Your task to perform on an android device: remove spam from my inbox in the gmail app Image 0: 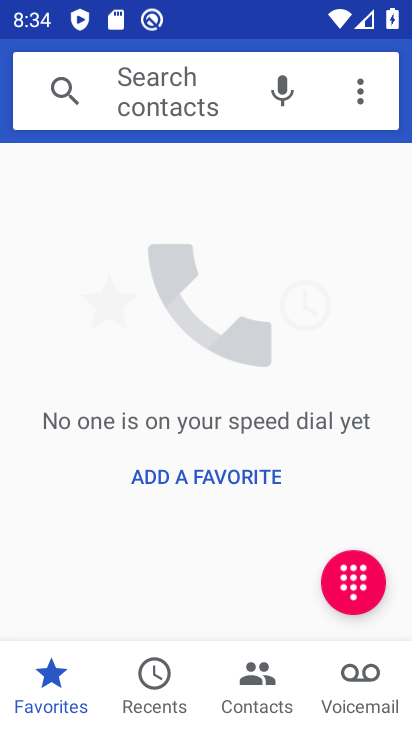
Step 0: press home button
Your task to perform on an android device: remove spam from my inbox in the gmail app Image 1: 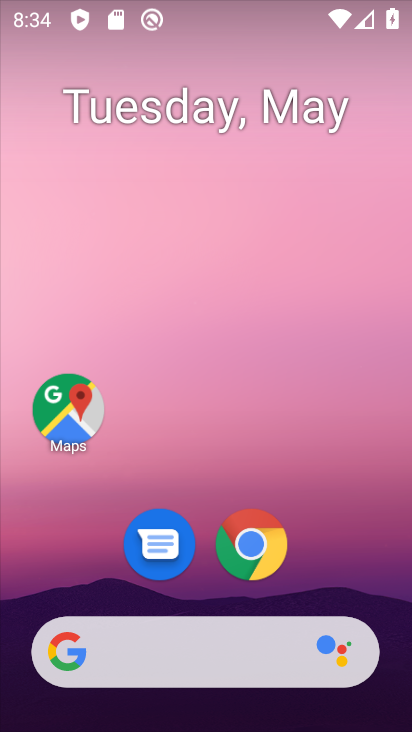
Step 1: drag from (373, 488) to (365, 149)
Your task to perform on an android device: remove spam from my inbox in the gmail app Image 2: 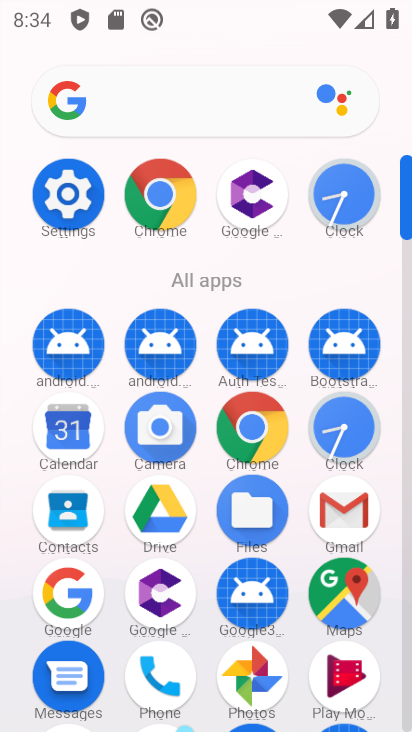
Step 2: click (328, 521)
Your task to perform on an android device: remove spam from my inbox in the gmail app Image 3: 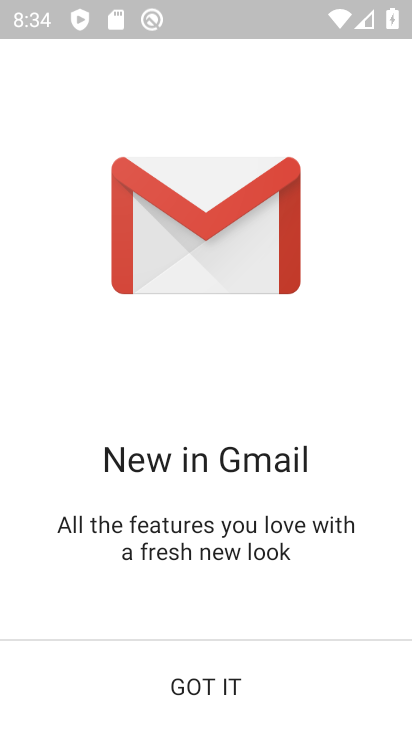
Step 3: click (227, 695)
Your task to perform on an android device: remove spam from my inbox in the gmail app Image 4: 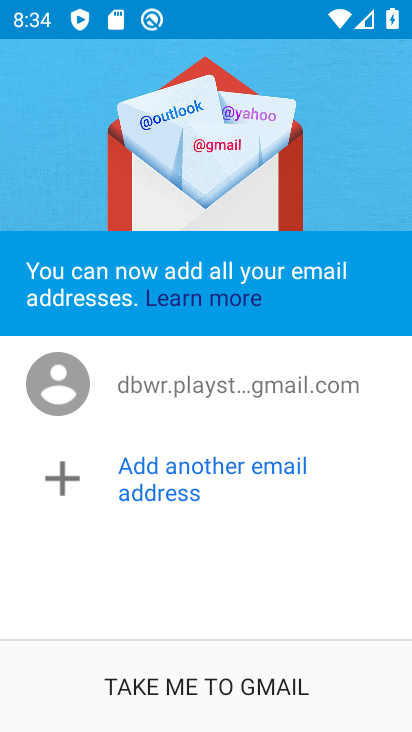
Step 4: click (226, 694)
Your task to perform on an android device: remove spam from my inbox in the gmail app Image 5: 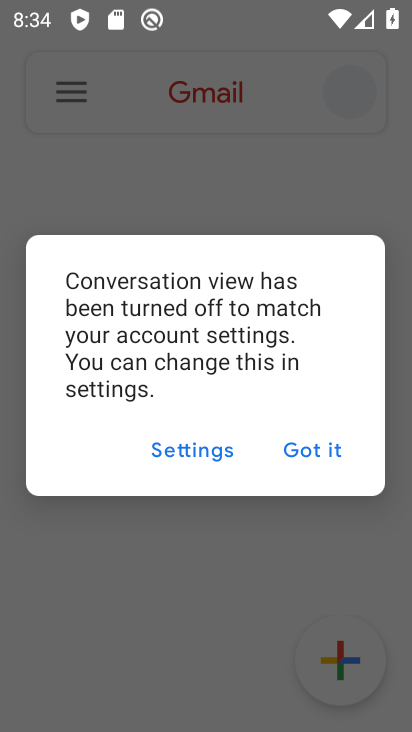
Step 5: click (332, 450)
Your task to perform on an android device: remove spam from my inbox in the gmail app Image 6: 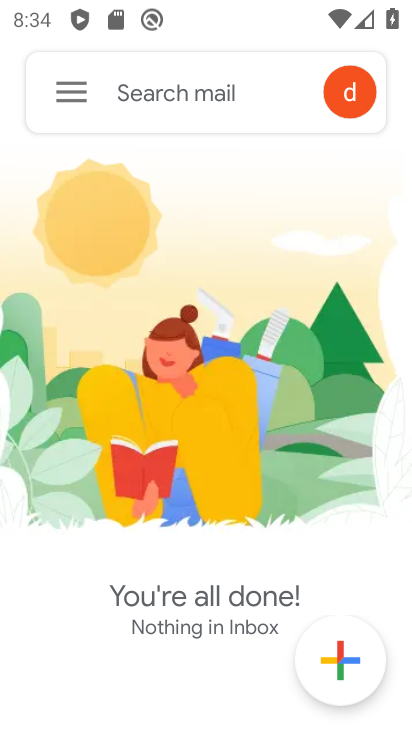
Step 6: click (73, 96)
Your task to perform on an android device: remove spam from my inbox in the gmail app Image 7: 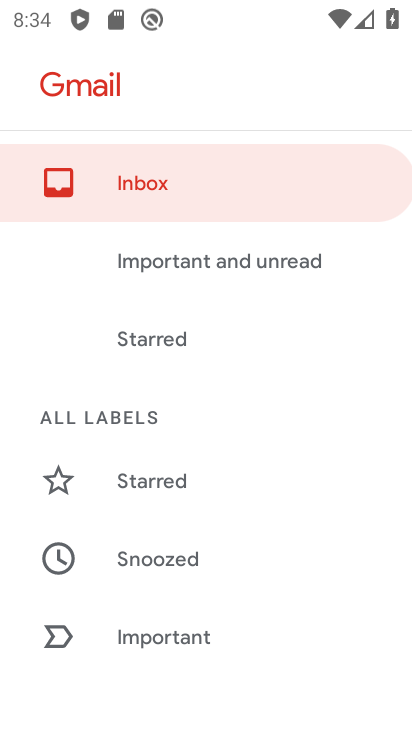
Step 7: drag from (212, 620) to (255, 299)
Your task to perform on an android device: remove spam from my inbox in the gmail app Image 8: 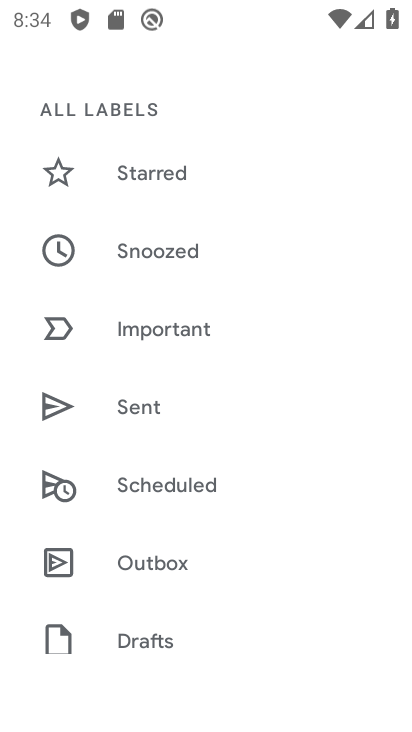
Step 8: drag from (221, 587) to (230, 254)
Your task to perform on an android device: remove spam from my inbox in the gmail app Image 9: 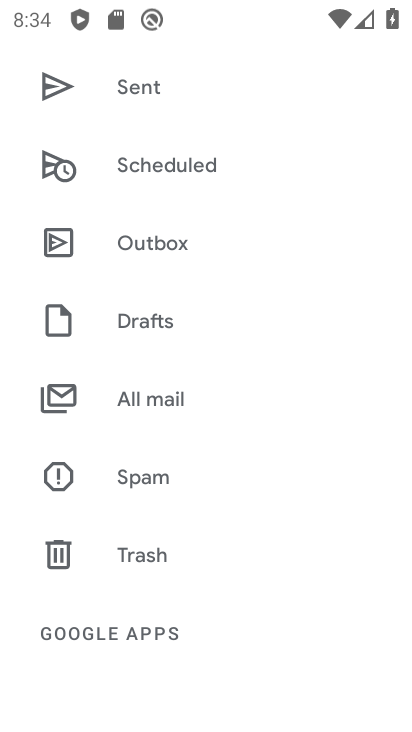
Step 9: click (172, 479)
Your task to perform on an android device: remove spam from my inbox in the gmail app Image 10: 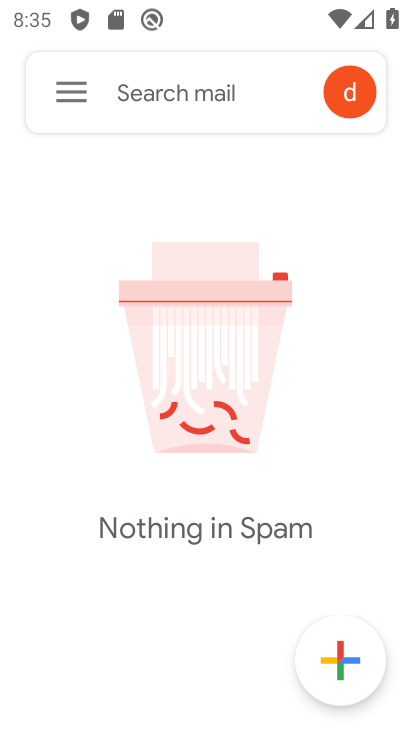
Step 10: click (59, 100)
Your task to perform on an android device: remove spam from my inbox in the gmail app Image 11: 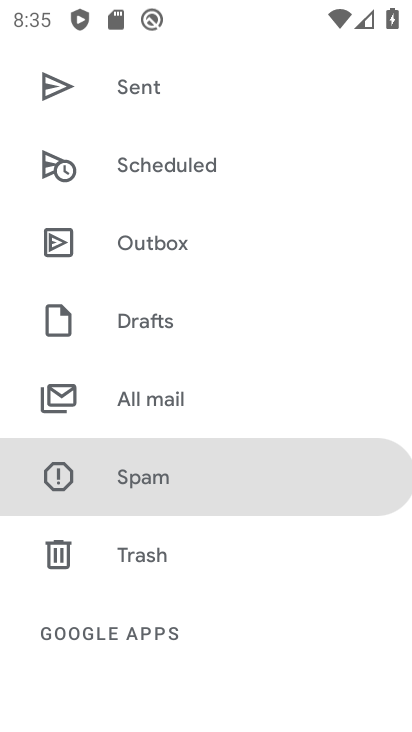
Step 11: click (181, 486)
Your task to perform on an android device: remove spam from my inbox in the gmail app Image 12: 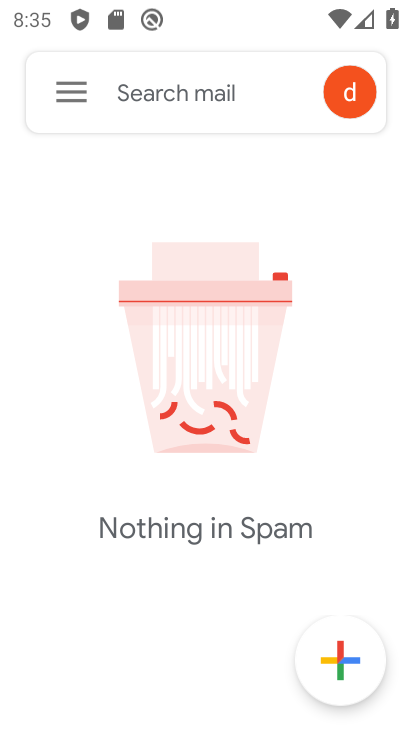
Step 12: task complete